Your task to perform on an android device: Open Chrome and go to the settings page Image 0: 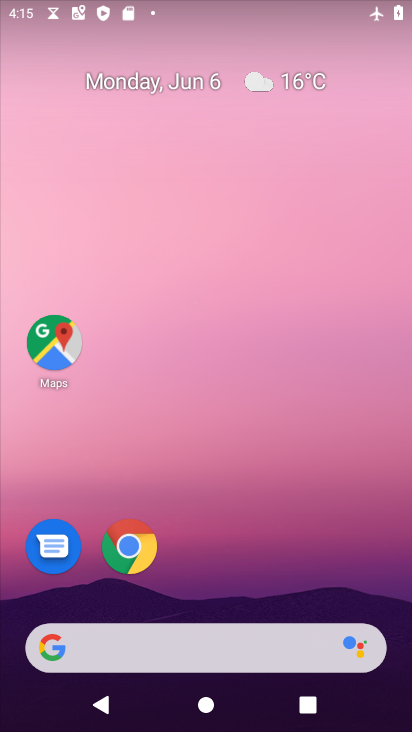
Step 0: drag from (298, 547) to (346, 68)
Your task to perform on an android device: Open Chrome and go to the settings page Image 1: 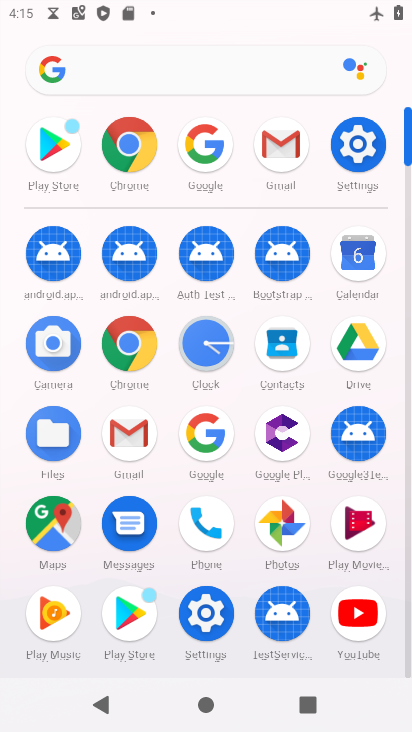
Step 1: click (141, 153)
Your task to perform on an android device: Open Chrome and go to the settings page Image 2: 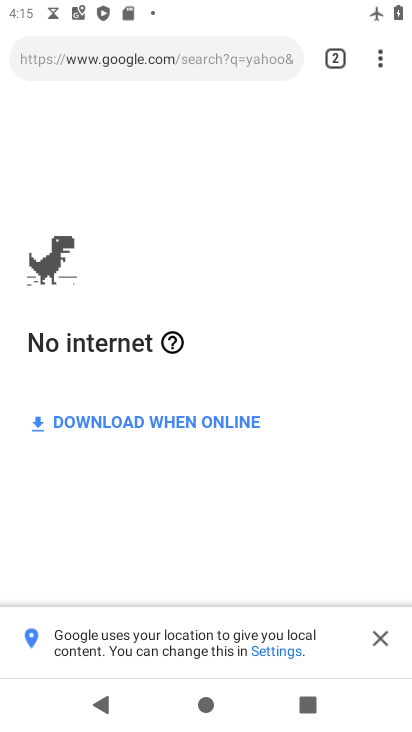
Step 2: task complete